Your task to perform on an android device: Go to network settings Image 0: 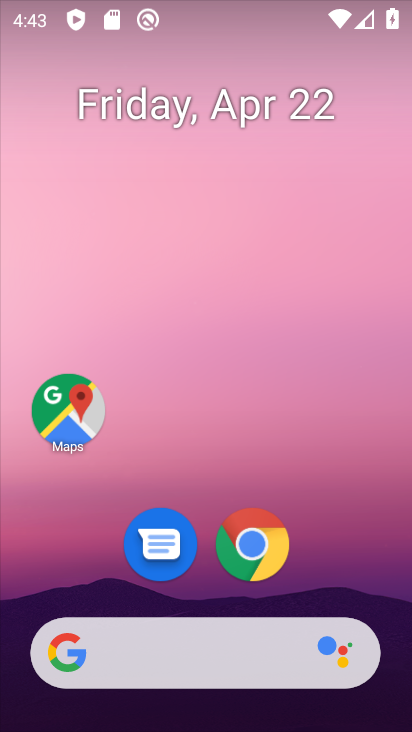
Step 0: drag from (217, 592) to (217, 232)
Your task to perform on an android device: Go to network settings Image 1: 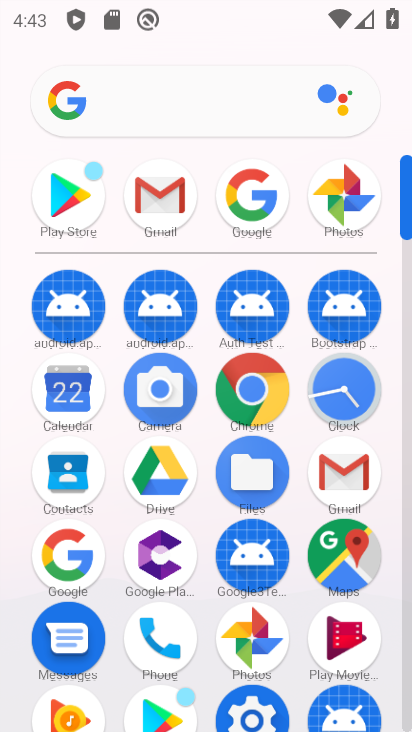
Step 1: click (256, 712)
Your task to perform on an android device: Go to network settings Image 2: 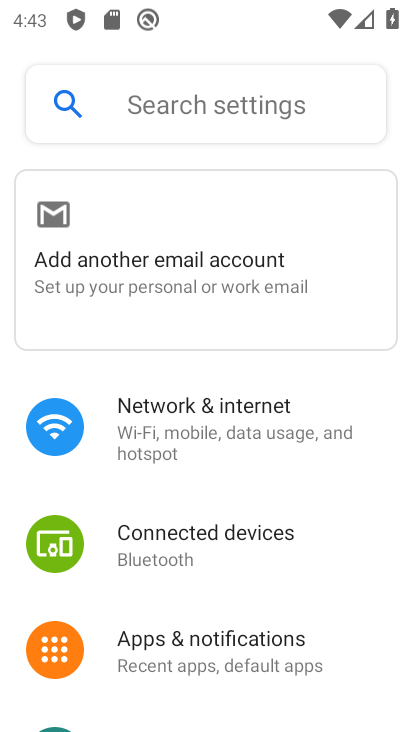
Step 2: click (165, 425)
Your task to perform on an android device: Go to network settings Image 3: 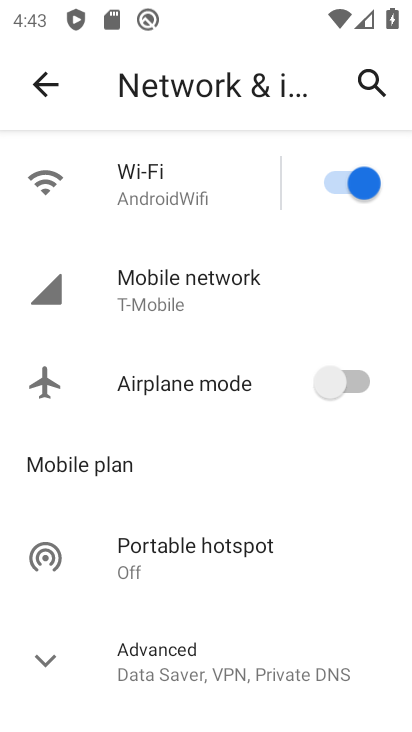
Step 3: click (205, 290)
Your task to perform on an android device: Go to network settings Image 4: 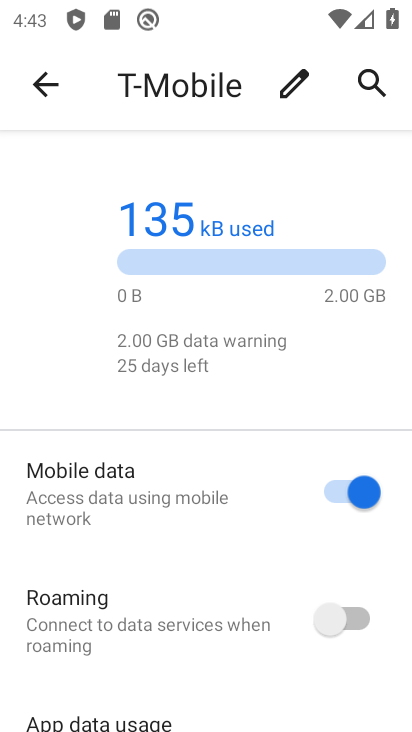
Step 4: task complete